Your task to perform on an android device: delete location history Image 0: 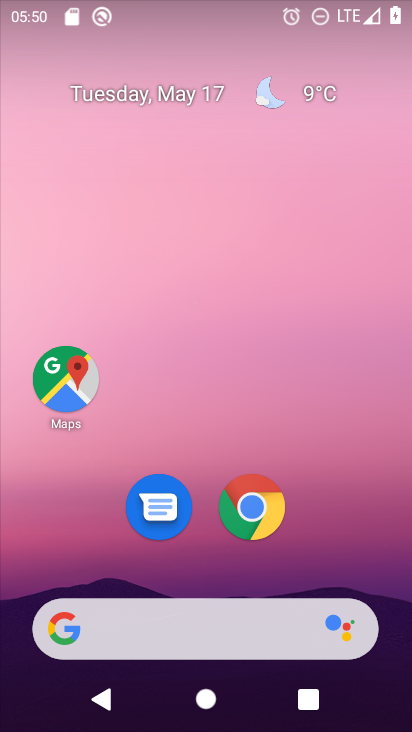
Step 0: drag from (326, 448) to (195, 14)
Your task to perform on an android device: delete location history Image 1: 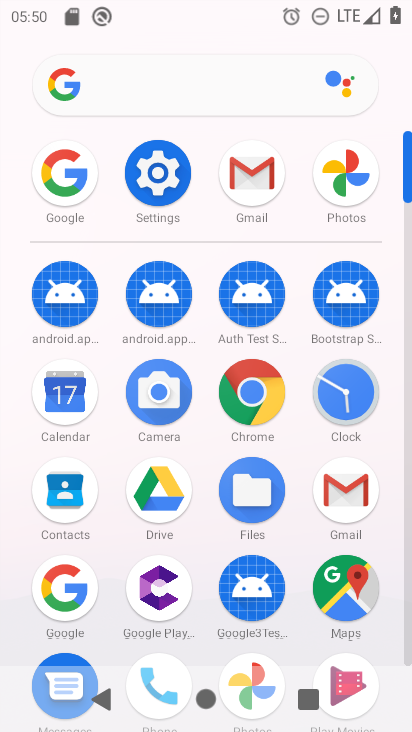
Step 1: click (159, 160)
Your task to perform on an android device: delete location history Image 2: 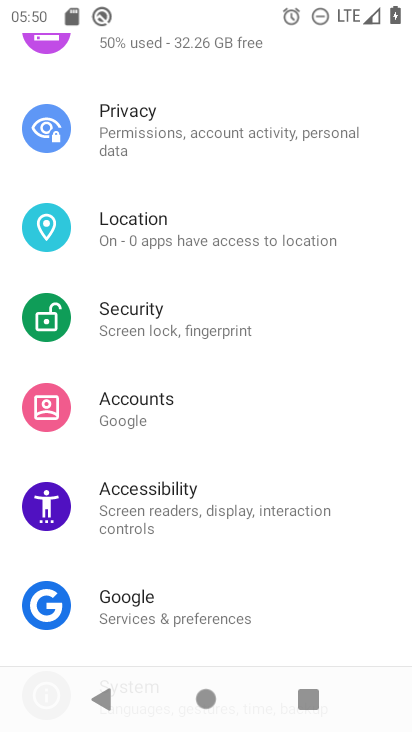
Step 2: click (225, 251)
Your task to perform on an android device: delete location history Image 3: 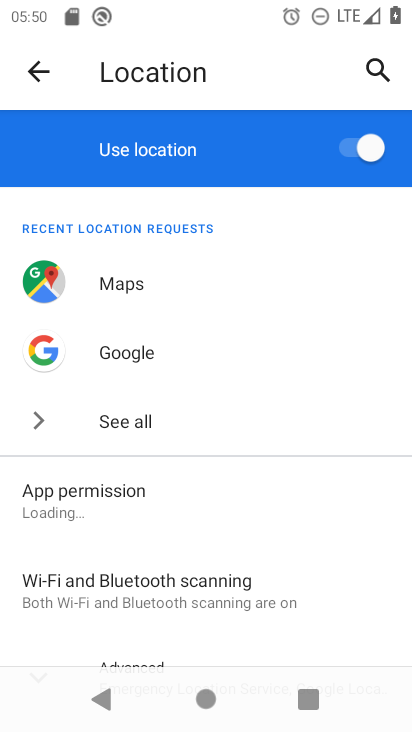
Step 3: drag from (255, 574) to (232, 171)
Your task to perform on an android device: delete location history Image 4: 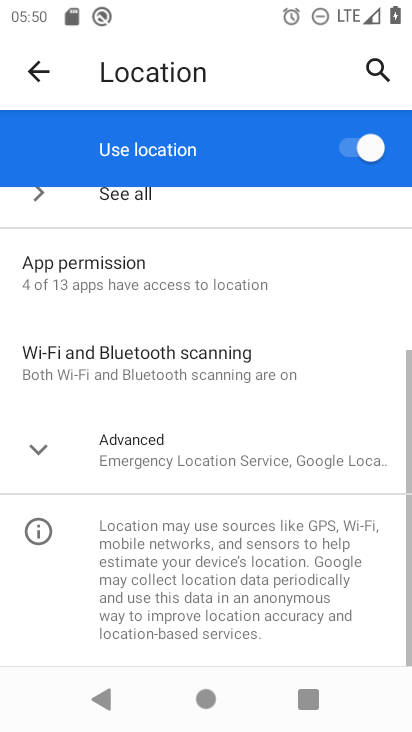
Step 4: click (227, 461)
Your task to perform on an android device: delete location history Image 5: 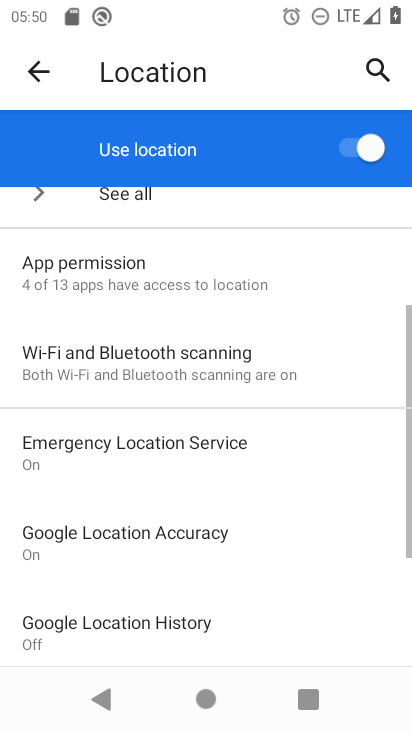
Step 5: drag from (262, 538) to (249, 274)
Your task to perform on an android device: delete location history Image 6: 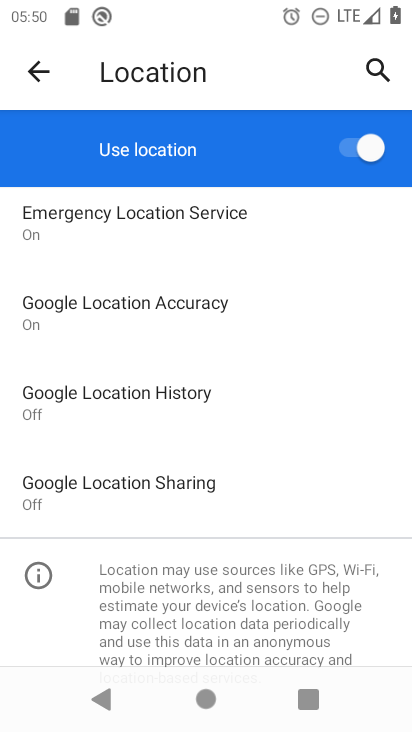
Step 6: click (232, 372)
Your task to perform on an android device: delete location history Image 7: 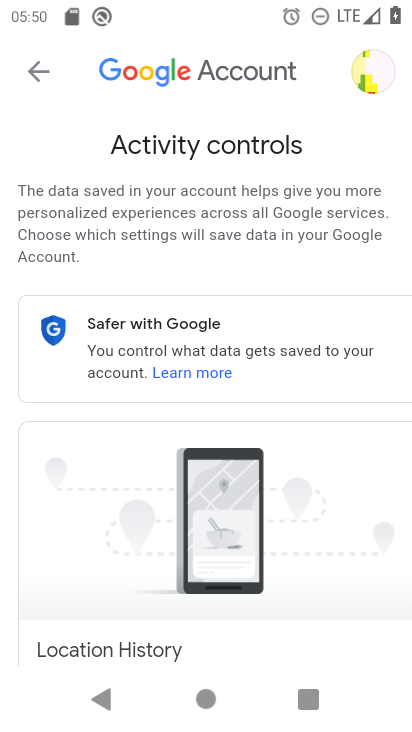
Step 7: drag from (272, 527) to (207, 101)
Your task to perform on an android device: delete location history Image 8: 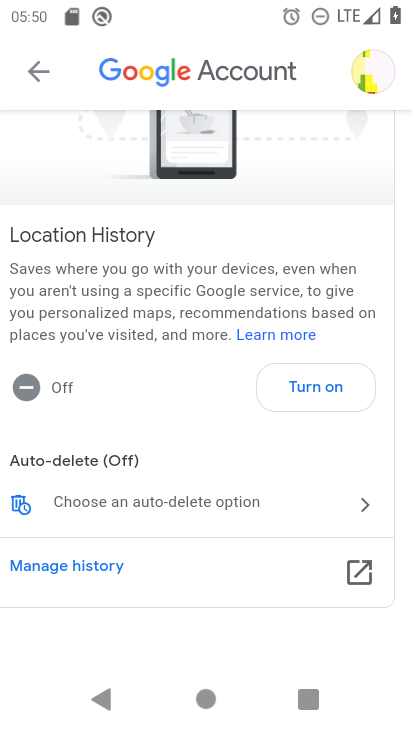
Step 8: click (20, 502)
Your task to perform on an android device: delete location history Image 9: 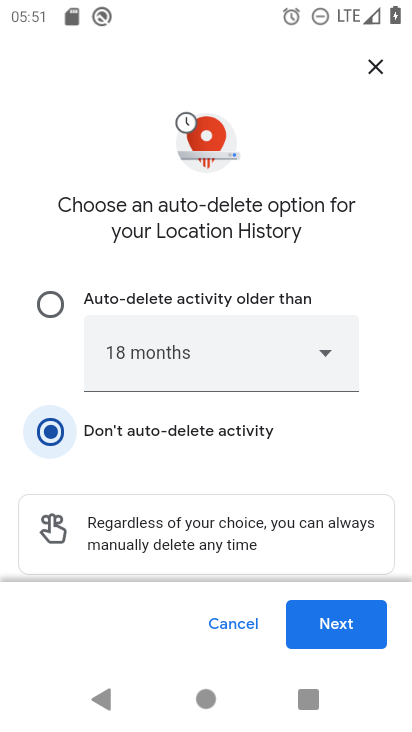
Step 9: click (349, 623)
Your task to perform on an android device: delete location history Image 10: 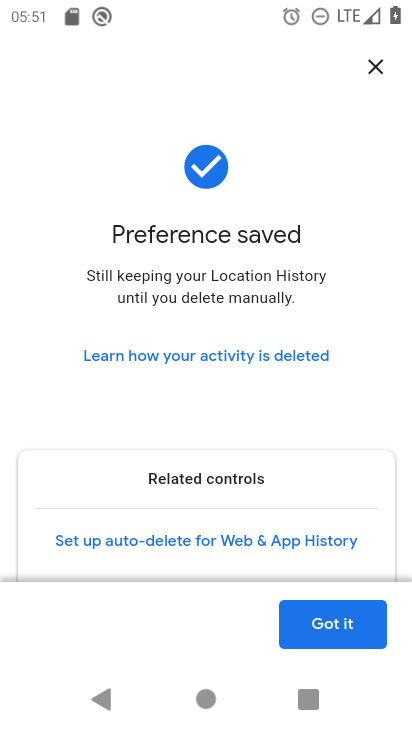
Step 10: click (360, 632)
Your task to perform on an android device: delete location history Image 11: 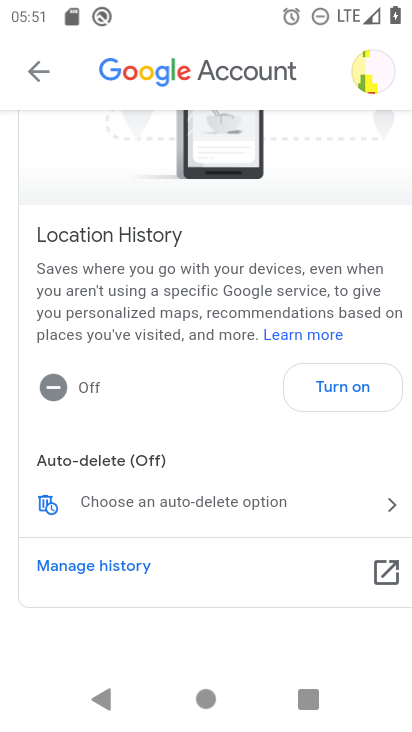
Step 11: task complete